Your task to perform on an android device: turn off smart reply in the gmail app Image 0: 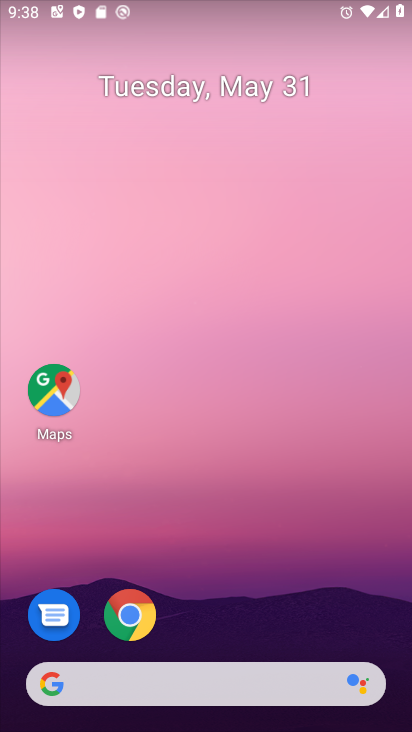
Step 0: drag from (387, 629) to (356, 85)
Your task to perform on an android device: turn off smart reply in the gmail app Image 1: 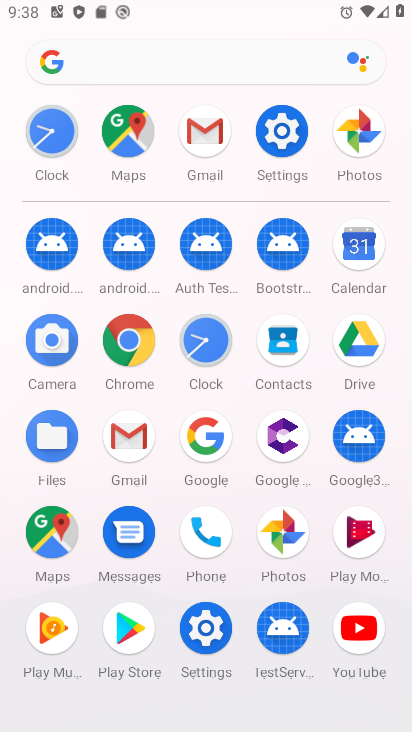
Step 1: click (132, 438)
Your task to perform on an android device: turn off smart reply in the gmail app Image 2: 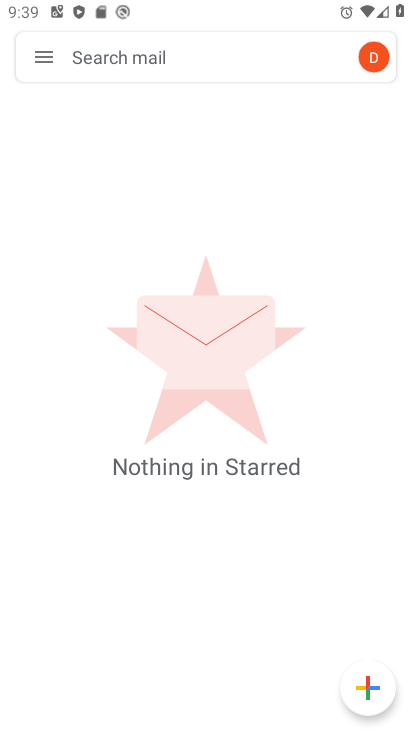
Step 2: click (43, 58)
Your task to perform on an android device: turn off smart reply in the gmail app Image 3: 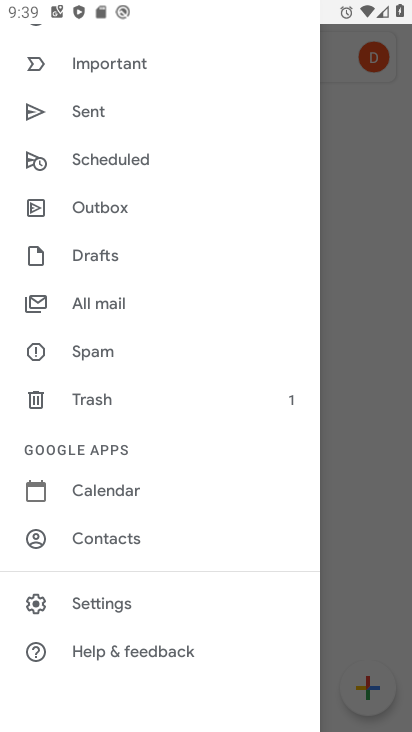
Step 3: click (98, 615)
Your task to perform on an android device: turn off smart reply in the gmail app Image 4: 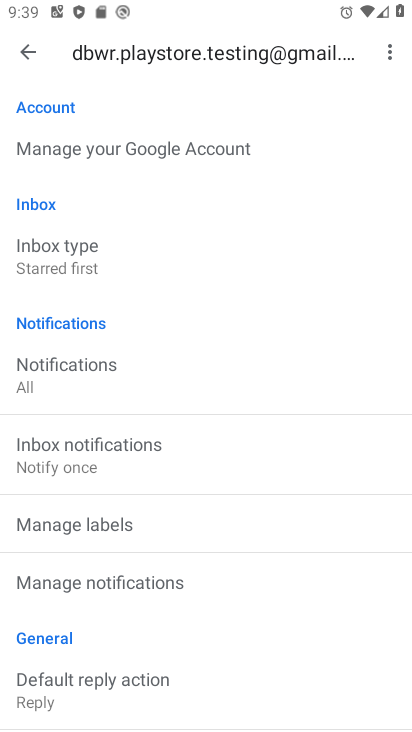
Step 4: drag from (256, 697) to (295, 140)
Your task to perform on an android device: turn off smart reply in the gmail app Image 5: 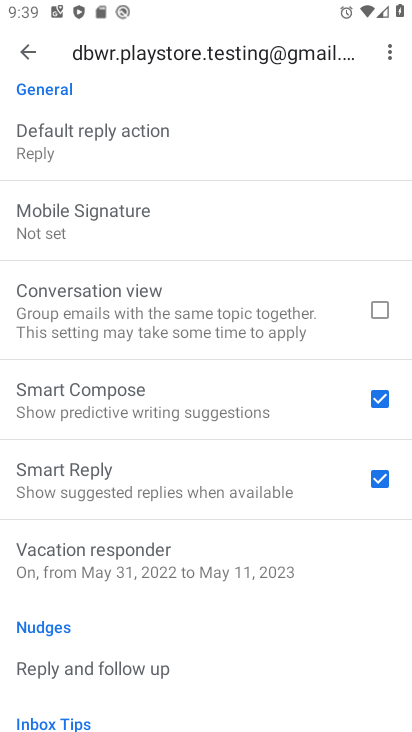
Step 5: click (375, 473)
Your task to perform on an android device: turn off smart reply in the gmail app Image 6: 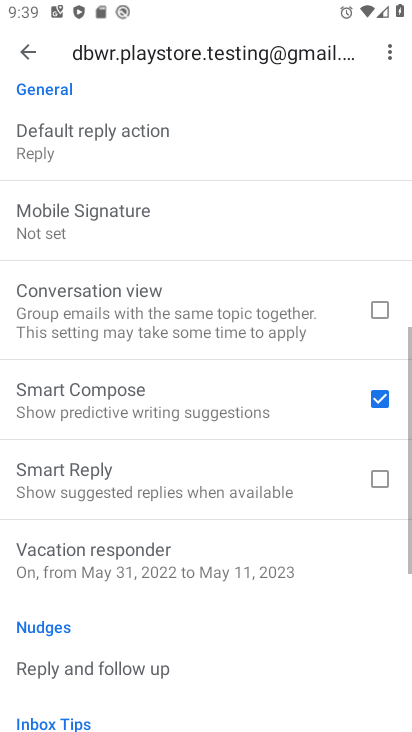
Step 6: task complete